Your task to perform on an android device: change notification settings in the gmail app Image 0: 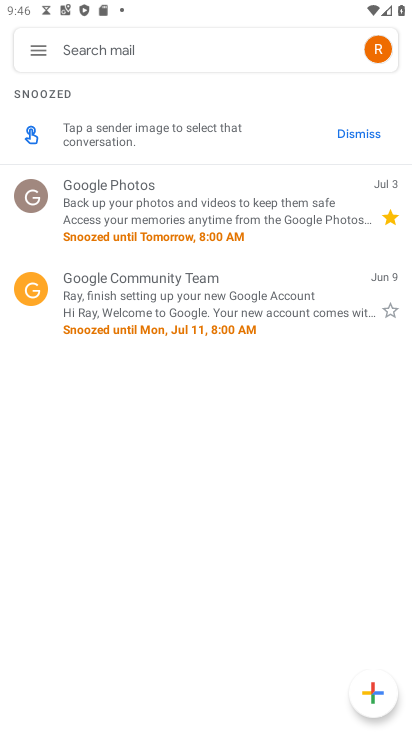
Step 0: press home button
Your task to perform on an android device: change notification settings in the gmail app Image 1: 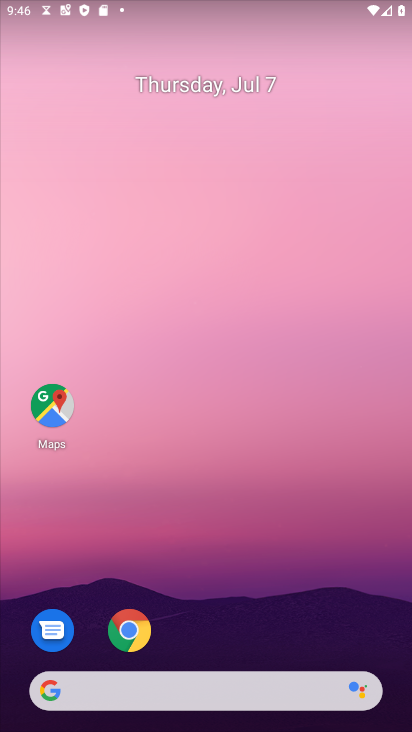
Step 1: drag from (152, 664) to (153, 236)
Your task to perform on an android device: change notification settings in the gmail app Image 2: 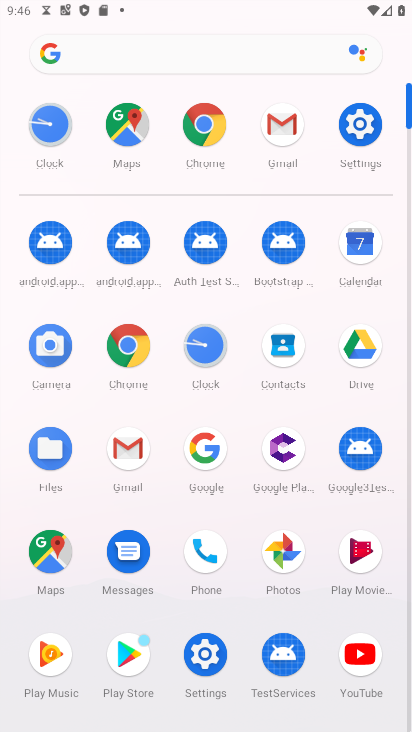
Step 2: click (285, 128)
Your task to perform on an android device: change notification settings in the gmail app Image 3: 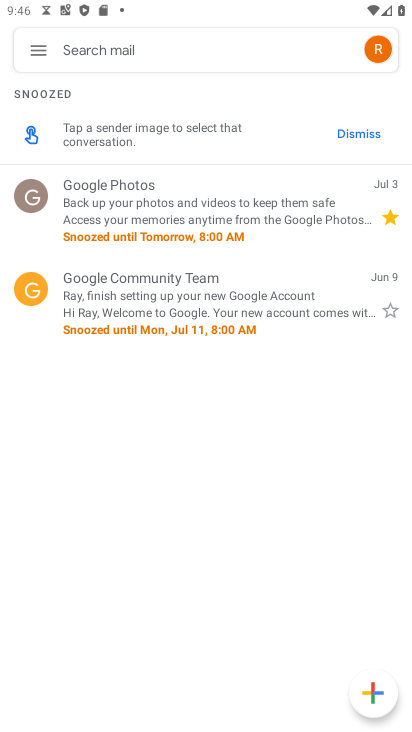
Step 3: click (36, 51)
Your task to perform on an android device: change notification settings in the gmail app Image 4: 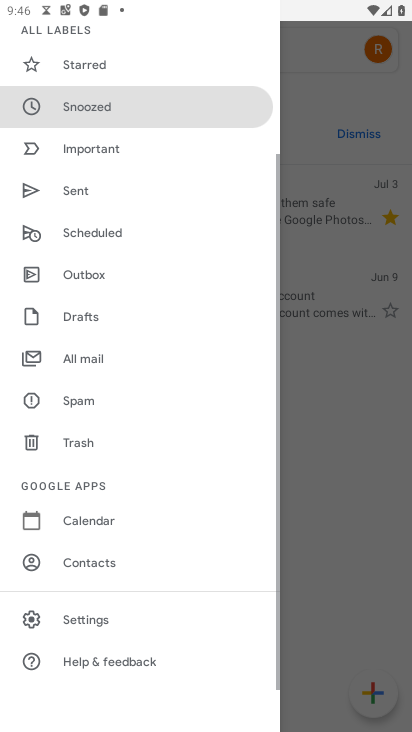
Step 4: click (88, 620)
Your task to perform on an android device: change notification settings in the gmail app Image 5: 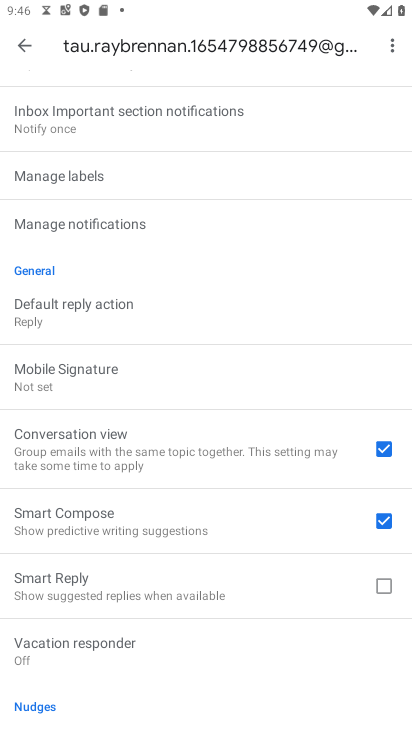
Step 5: click (91, 225)
Your task to perform on an android device: change notification settings in the gmail app Image 6: 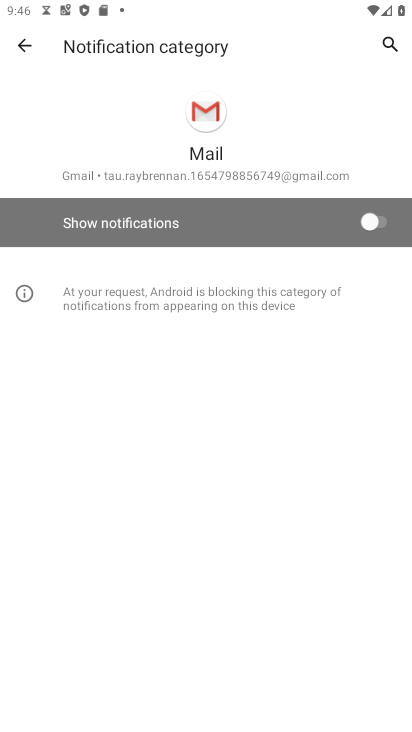
Step 6: click (385, 218)
Your task to perform on an android device: change notification settings in the gmail app Image 7: 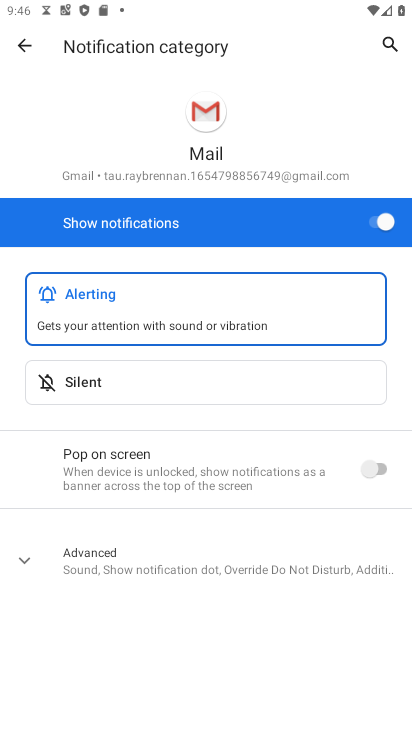
Step 7: task complete